Your task to perform on an android device: Search for Italian restaurants on Maps Image 0: 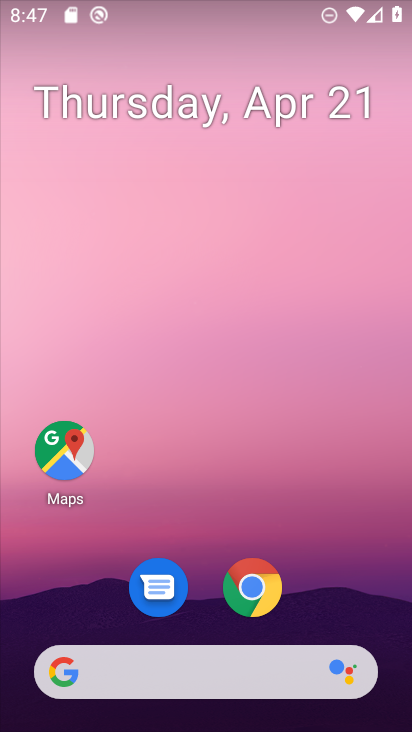
Step 0: click (60, 445)
Your task to perform on an android device: Search for Italian restaurants on Maps Image 1: 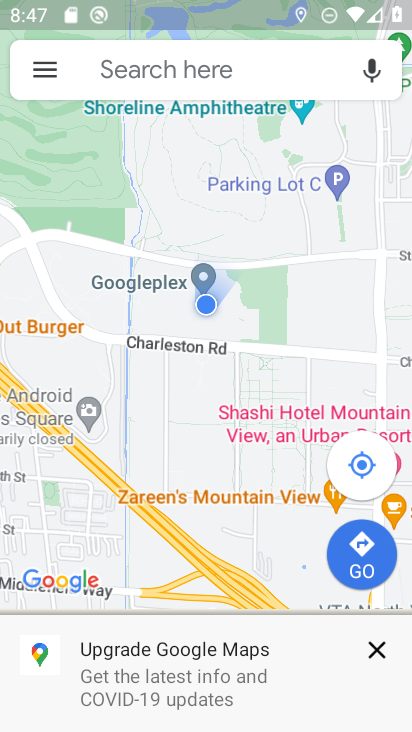
Step 1: click (231, 77)
Your task to perform on an android device: Search for Italian restaurants on Maps Image 2: 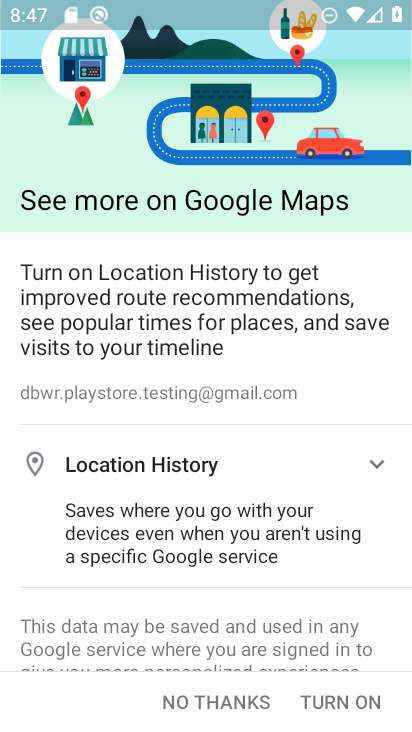
Step 2: click (309, 693)
Your task to perform on an android device: Search for Italian restaurants on Maps Image 3: 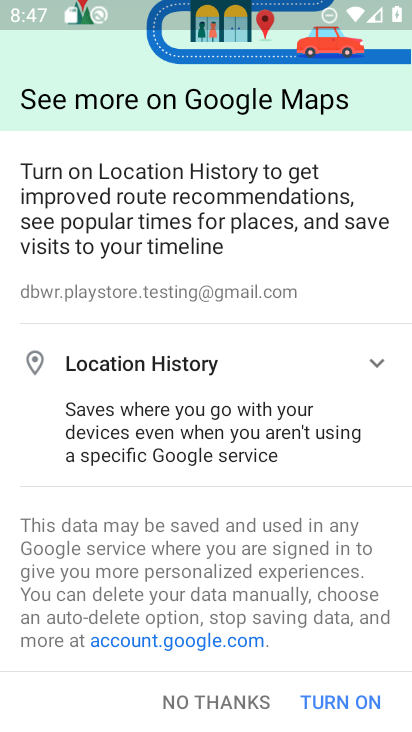
Step 3: click (309, 693)
Your task to perform on an android device: Search for Italian restaurants on Maps Image 4: 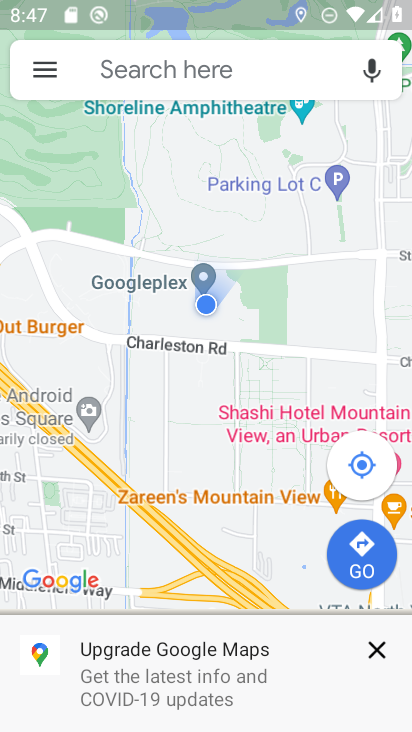
Step 4: click (232, 77)
Your task to perform on an android device: Search for Italian restaurants on Maps Image 5: 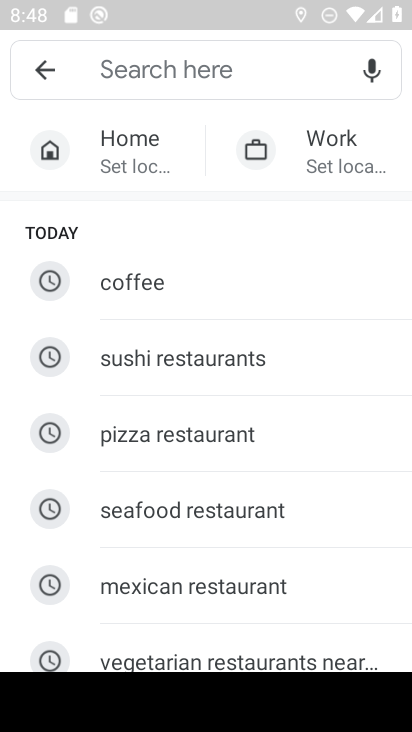
Step 5: type " Italian restaurants"
Your task to perform on an android device: Search for Italian restaurants on Maps Image 6: 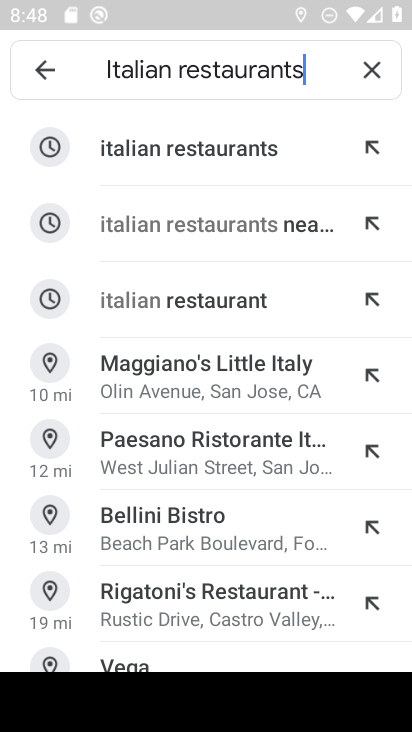
Step 6: click (236, 151)
Your task to perform on an android device: Search for Italian restaurants on Maps Image 7: 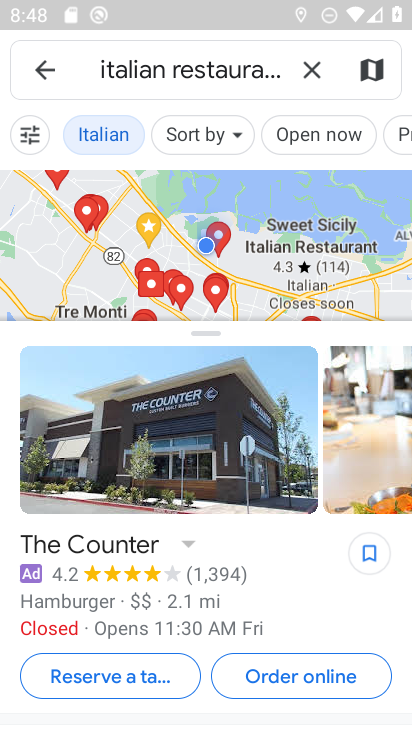
Step 7: task complete